Your task to perform on an android device: see tabs open on other devices in the chrome app Image 0: 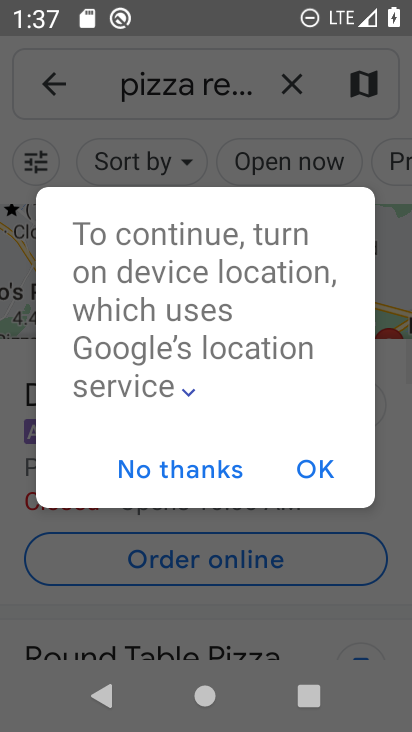
Step 0: press home button
Your task to perform on an android device: see tabs open on other devices in the chrome app Image 1: 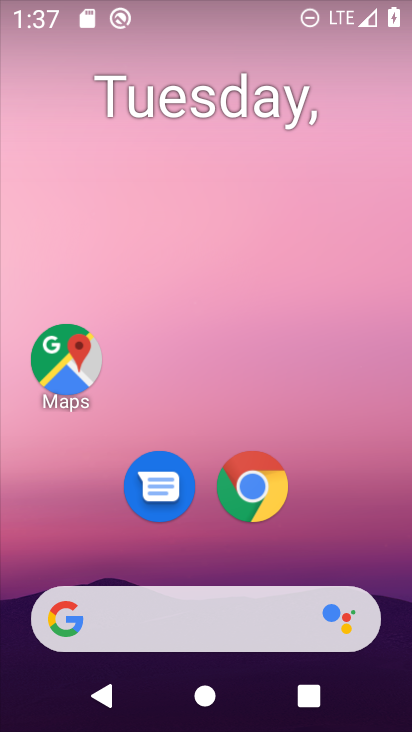
Step 1: drag from (222, 584) to (286, 162)
Your task to perform on an android device: see tabs open on other devices in the chrome app Image 2: 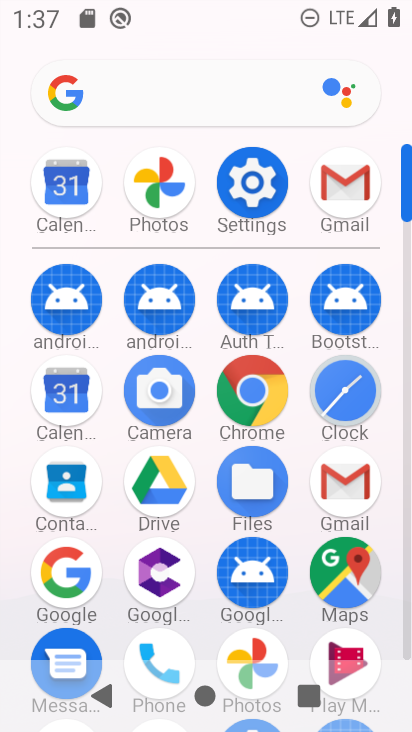
Step 2: click (249, 407)
Your task to perform on an android device: see tabs open on other devices in the chrome app Image 3: 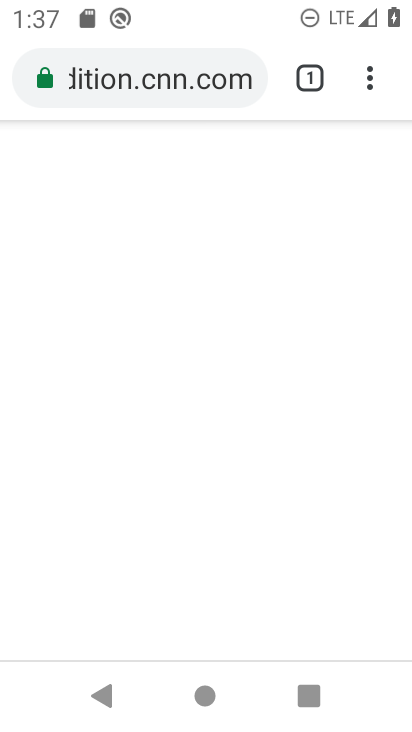
Step 3: click (321, 89)
Your task to perform on an android device: see tabs open on other devices in the chrome app Image 4: 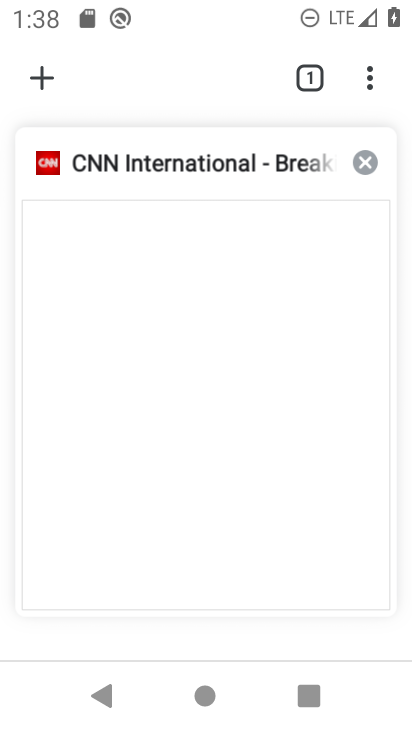
Step 4: click (368, 83)
Your task to perform on an android device: see tabs open on other devices in the chrome app Image 5: 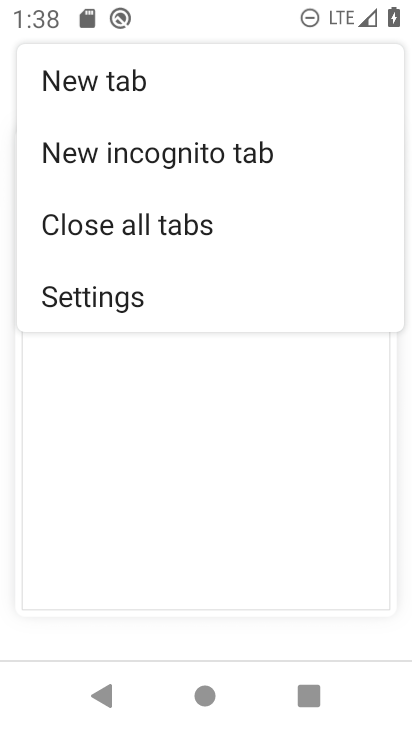
Step 5: click (109, 387)
Your task to perform on an android device: see tabs open on other devices in the chrome app Image 6: 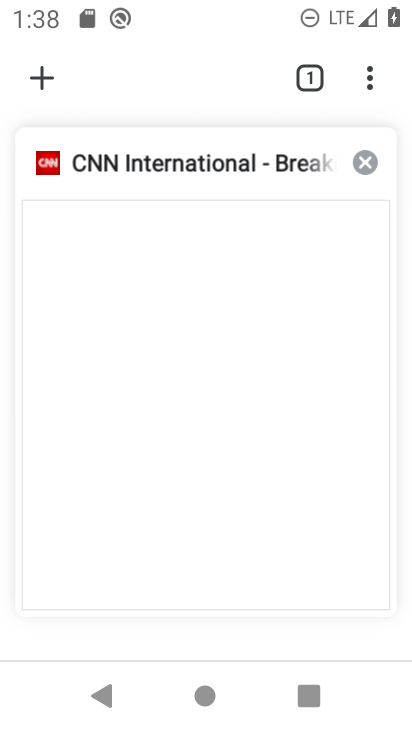
Step 6: click (148, 218)
Your task to perform on an android device: see tabs open on other devices in the chrome app Image 7: 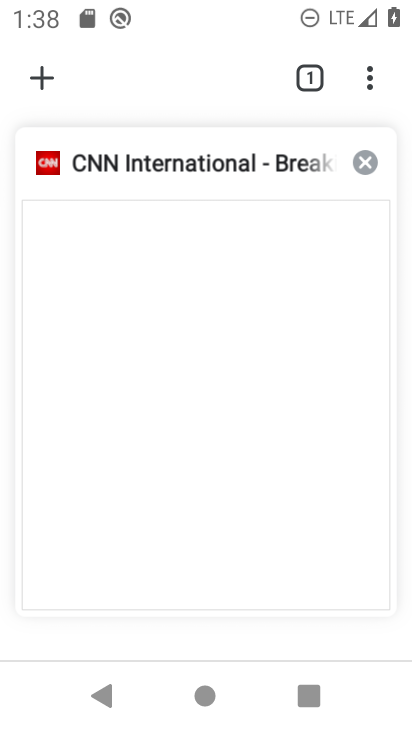
Step 7: click (214, 283)
Your task to perform on an android device: see tabs open on other devices in the chrome app Image 8: 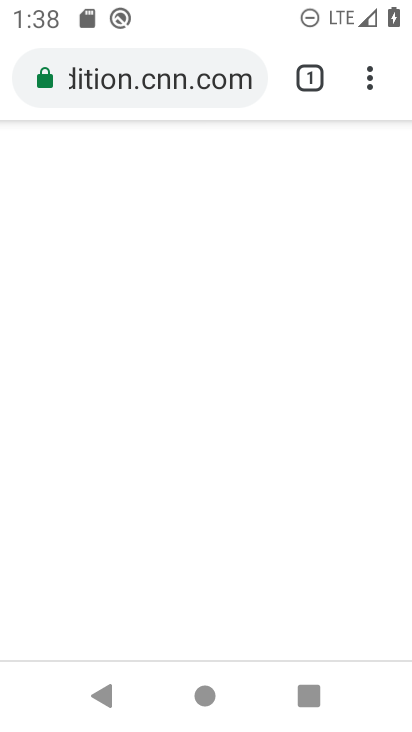
Step 8: click (376, 86)
Your task to perform on an android device: see tabs open on other devices in the chrome app Image 9: 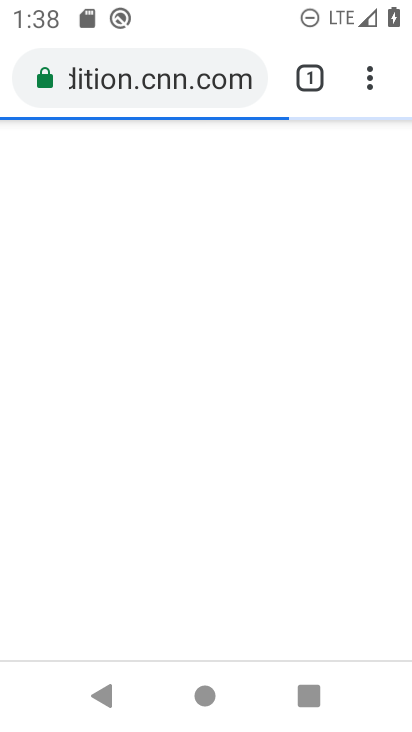
Step 9: click (370, 90)
Your task to perform on an android device: see tabs open on other devices in the chrome app Image 10: 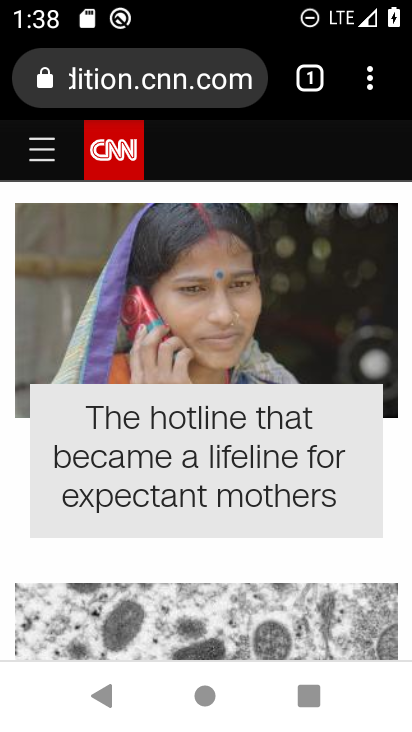
Step 10: click (371, 77)
Your task to perform on an android device: see tabs open on other devices in the chrome app Image 11: 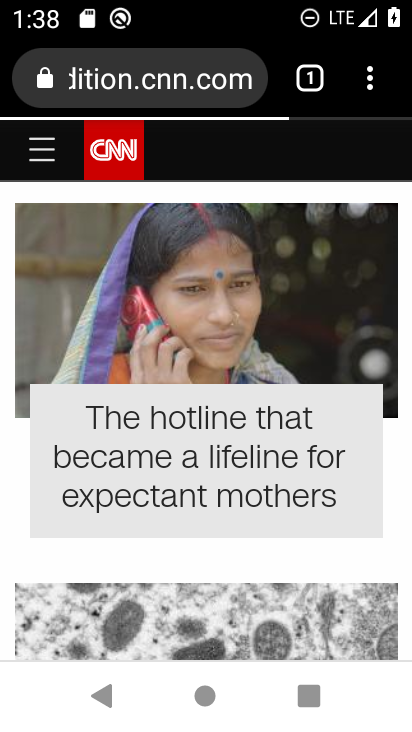
Step 11: click (370, 88)
Your task to perform on an android device: see tabs open on other devices in the chrome app Image 12: 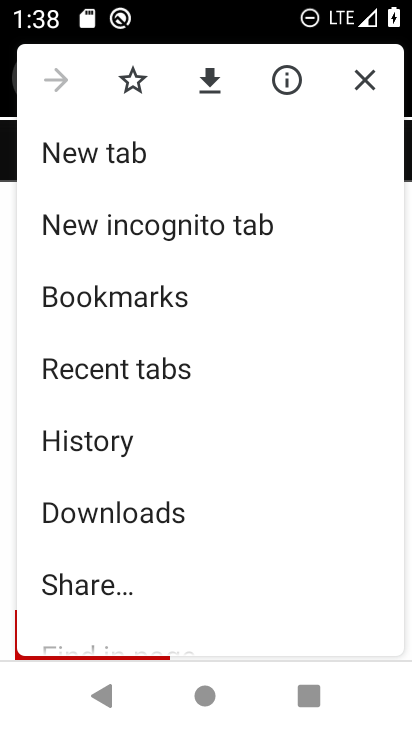
Step 12: click (138, 384)
Your task to perform on an android device: see tabs open on other devices in the chrome app Image 13: 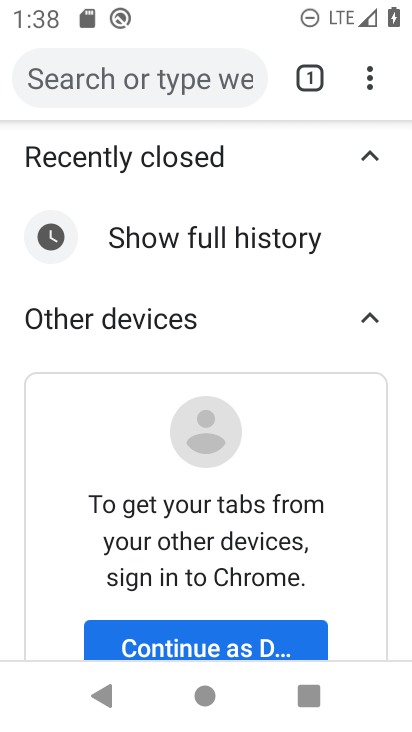
Step 13: click (191, 639)
Your task to perform on an android device: see tabs open on other devices in the chrome app Image 14: 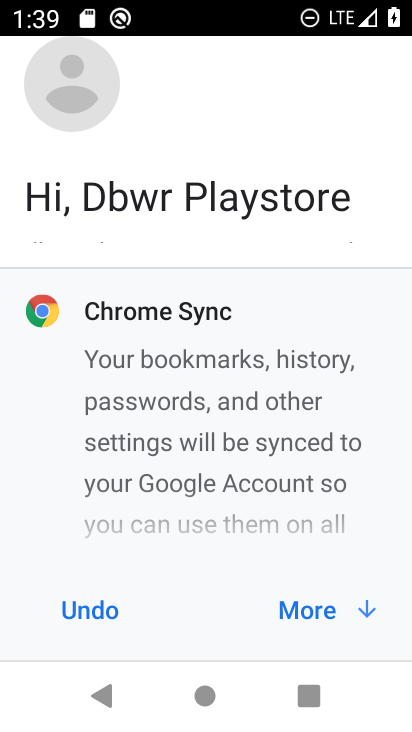
Step 14: click (313, 616)
Your task to perform on an android device: see tabs open on other devices in the chrome app Image 15: 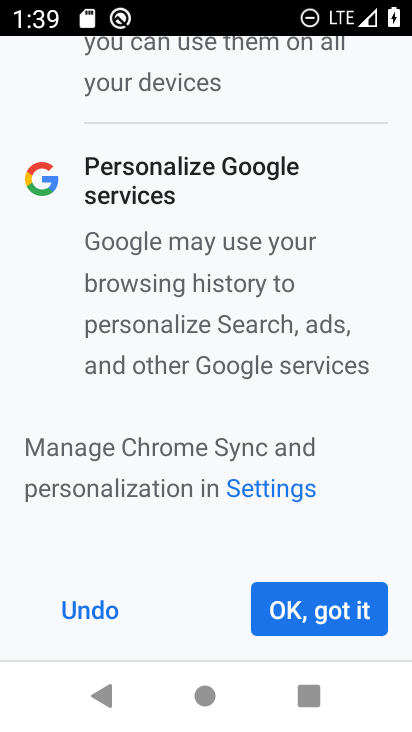
Step 15: click (309, 613)
Your task to perform on an android device: see tabs open on other devices in the chrome app Image 16: 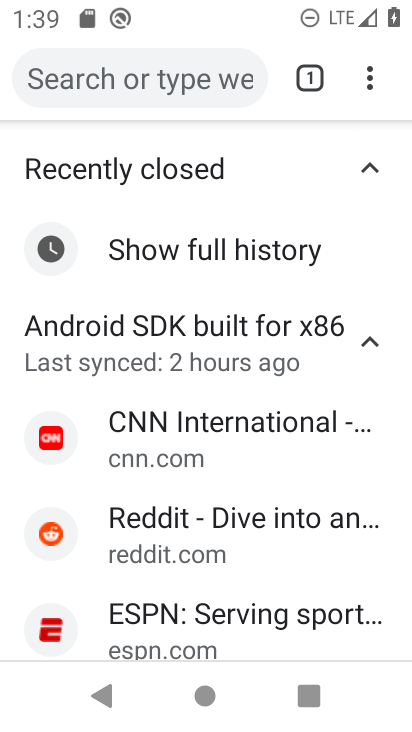
Step 16: task complete